Your task to perform on an android device: uninstall "Messenger Lite" Image 0: 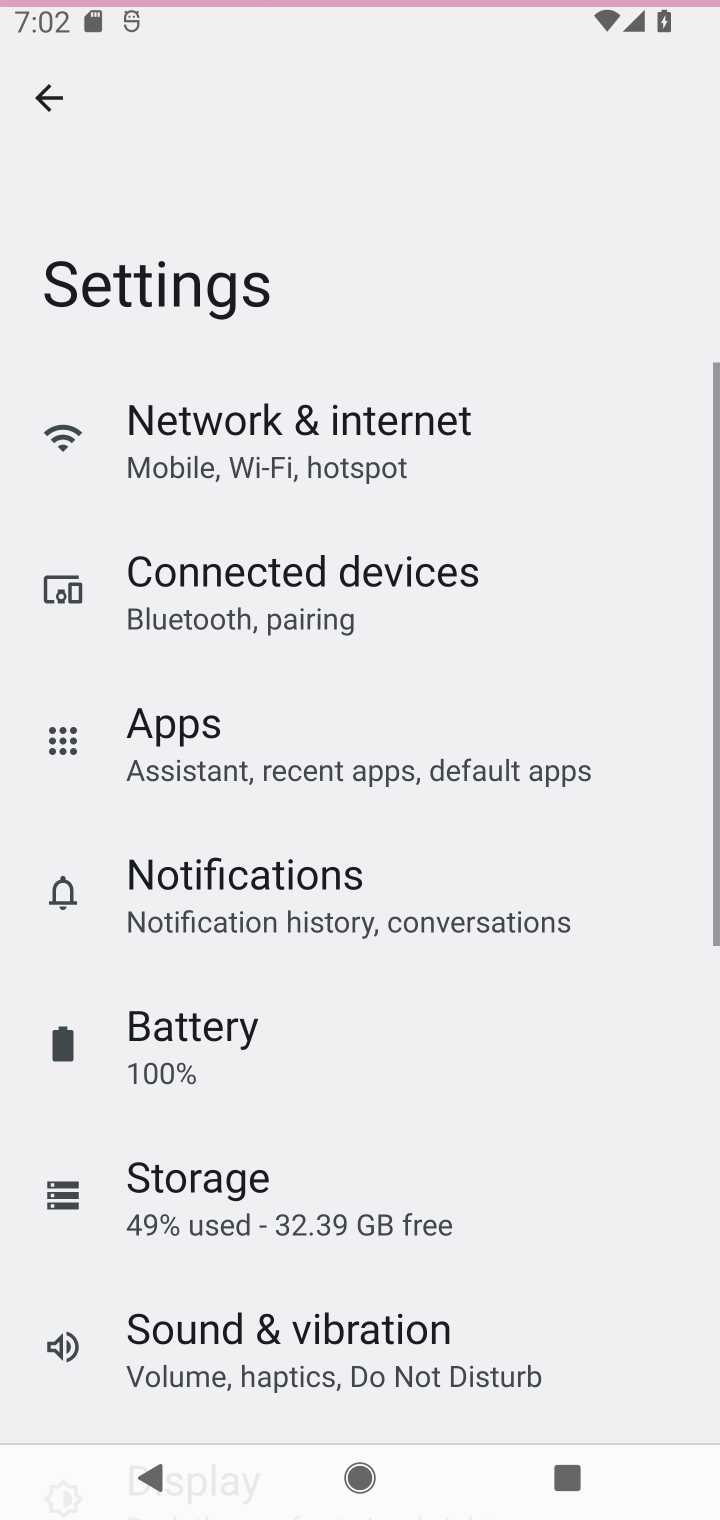
Step 0: press home button
Your task to perform on an android device: uninstall "Messenger Lite" Image 1: 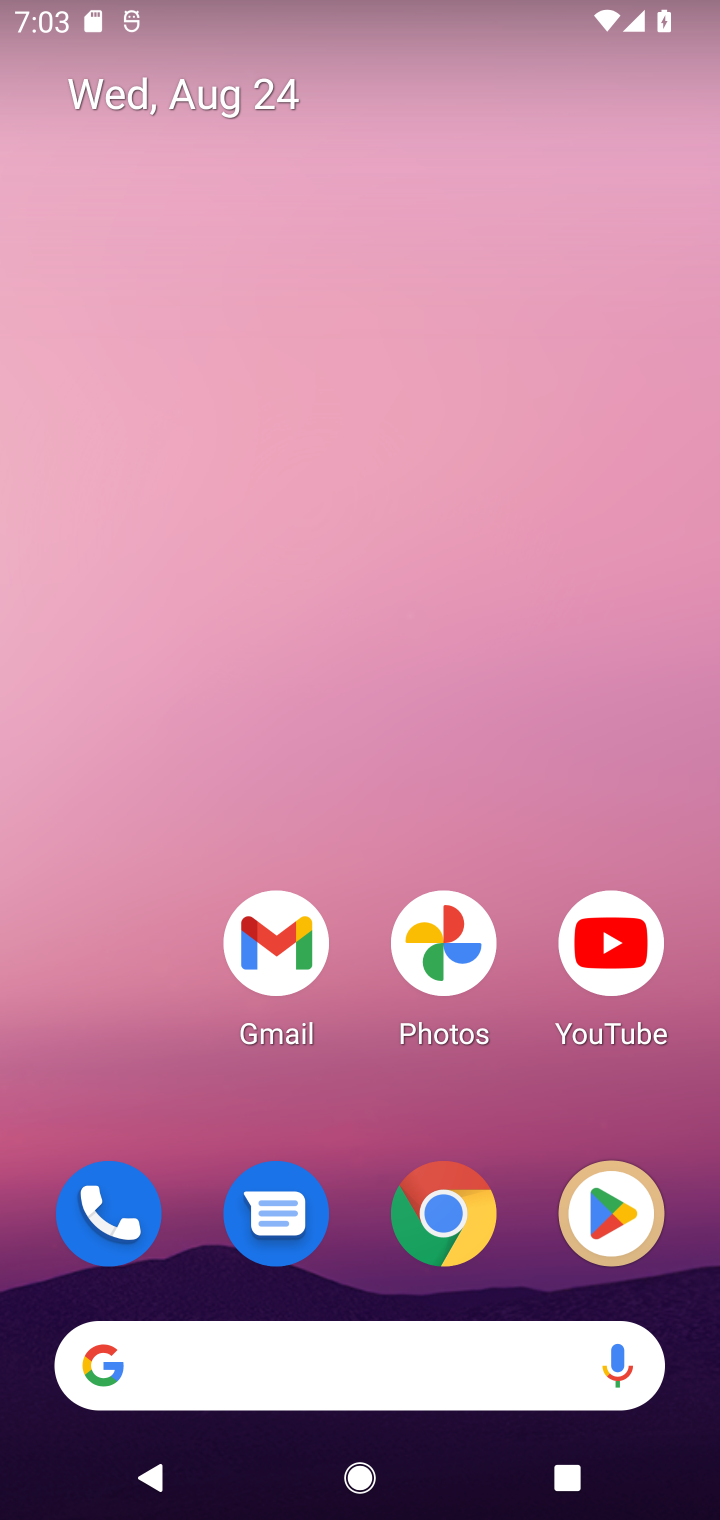
Step 1: click (602, 1205)
Your task to perform on an android device: uninstall "Messenger Lite" Image 2: 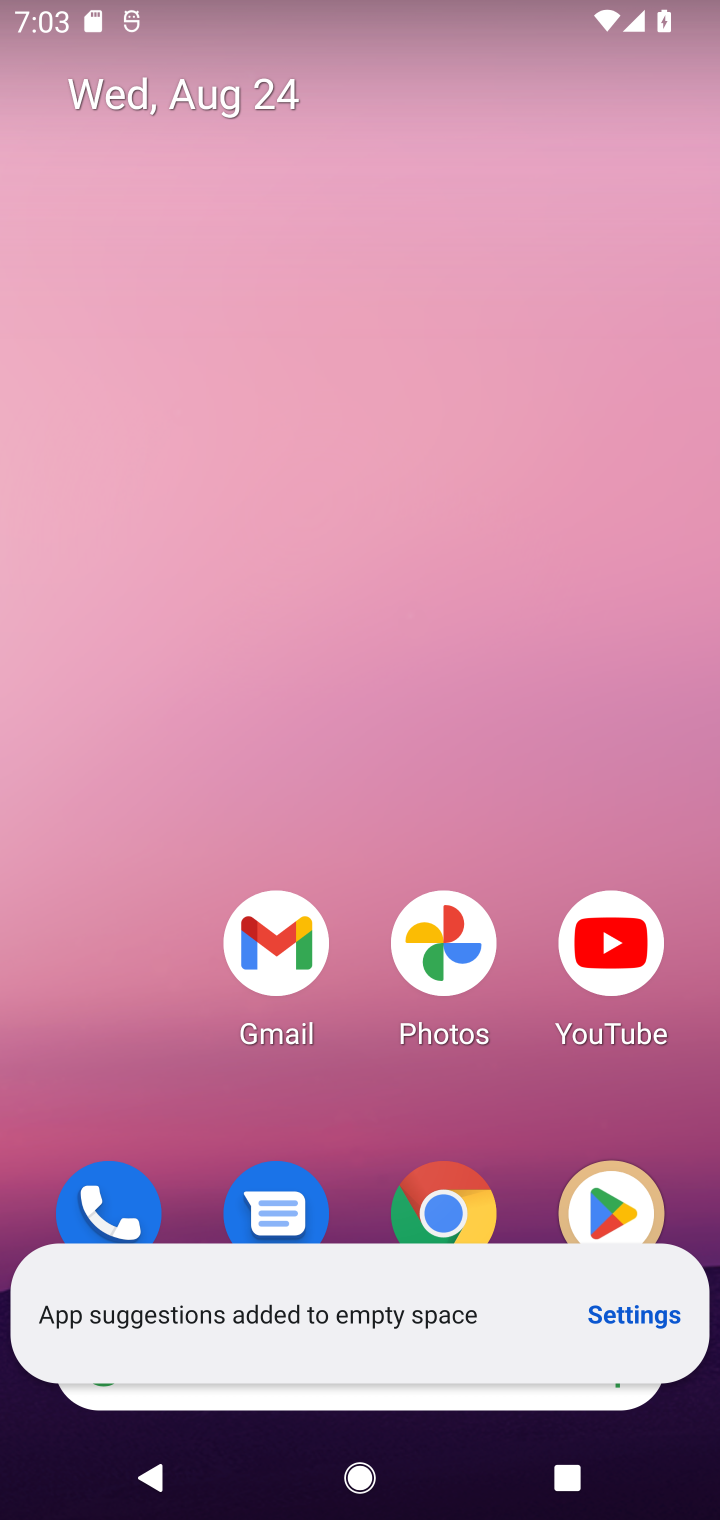
Step 2: click (600, 1203)
Your task to perform on an android device: uninstall "Messenger Lite" Image 3: 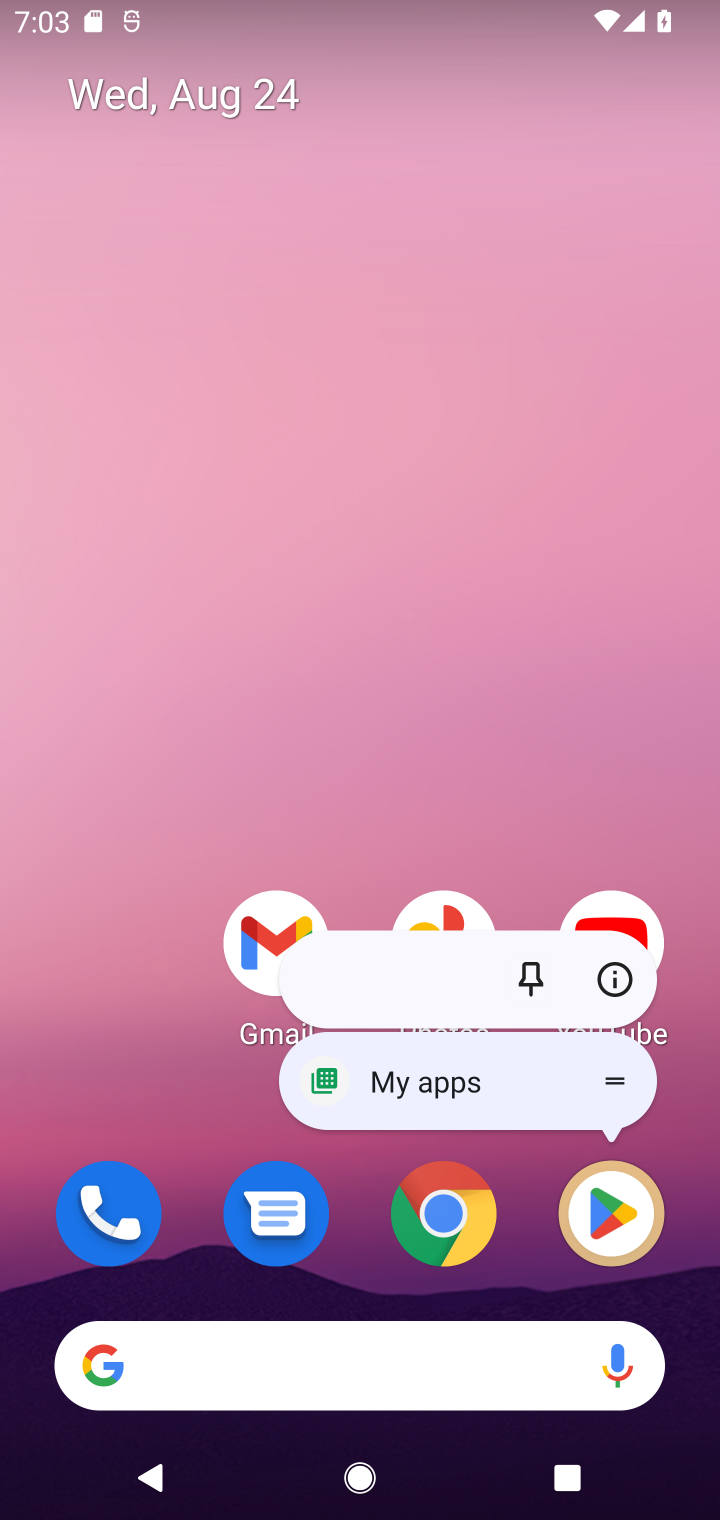
Step 3: click (604, 1203)
Your task to perform on an android device: uninstall "Messenger Lite" Image 4: 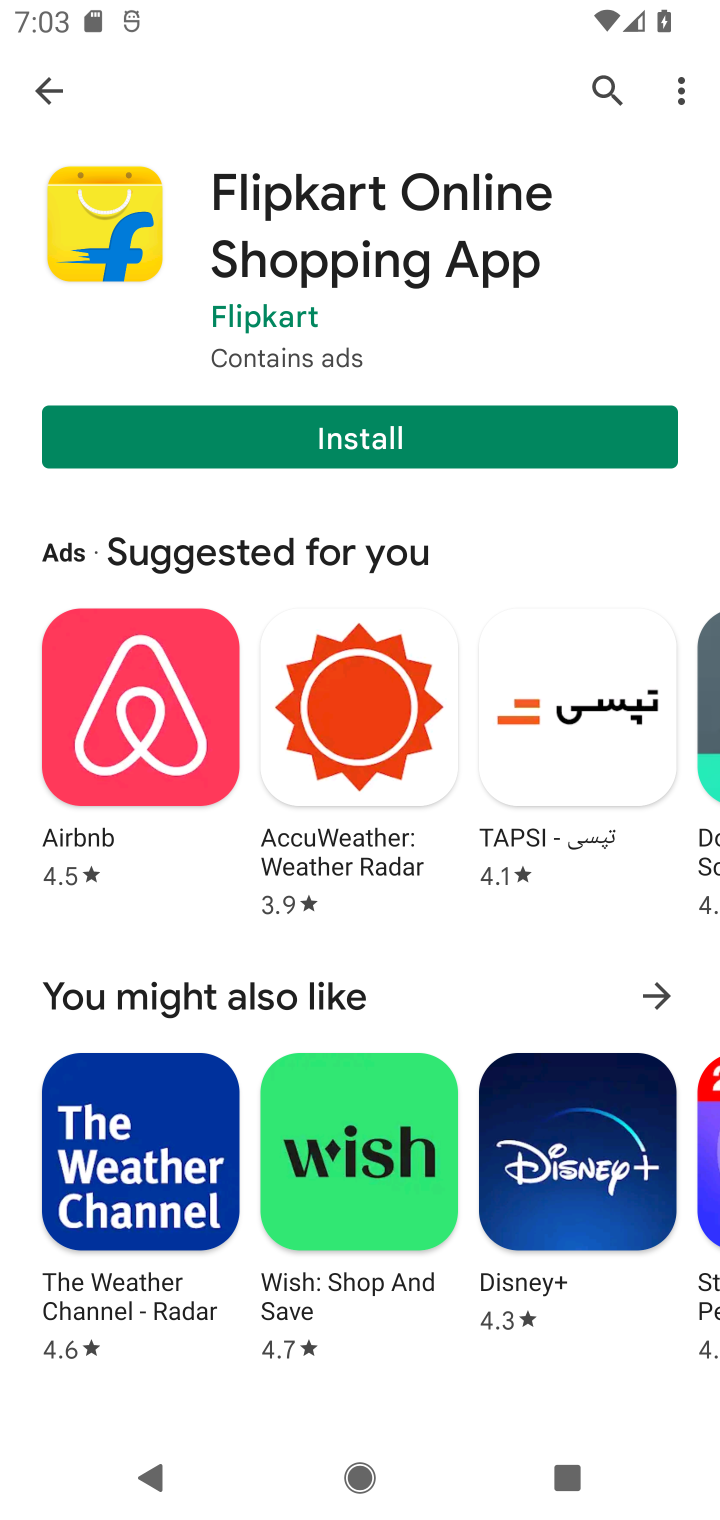
Step 4: click (48, 88)
Your task to perform on an android device: uninstall "Messenger Lite" Image 5: 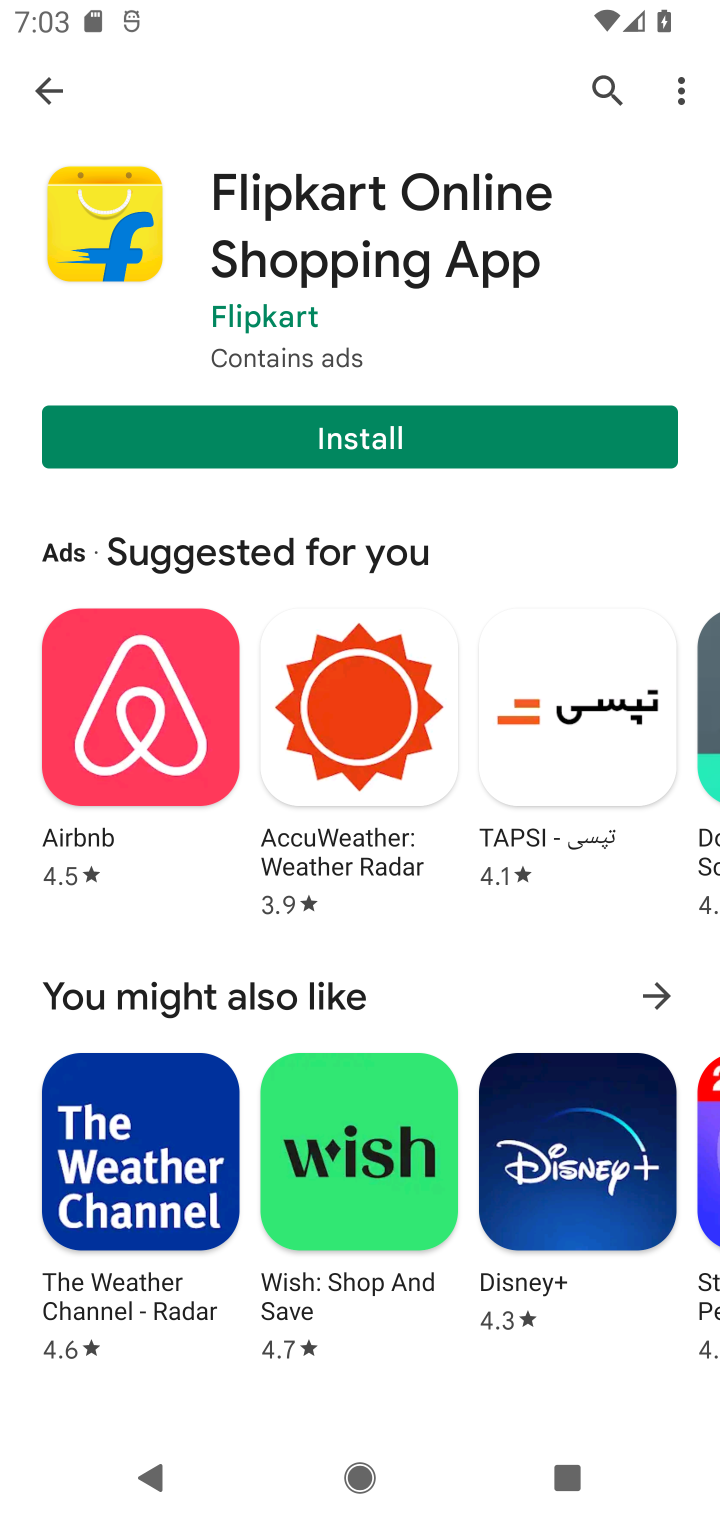
Step 5: click (589, 80)
Your task to perform on an android device: uninstall "Messenger Lite" Image 6: 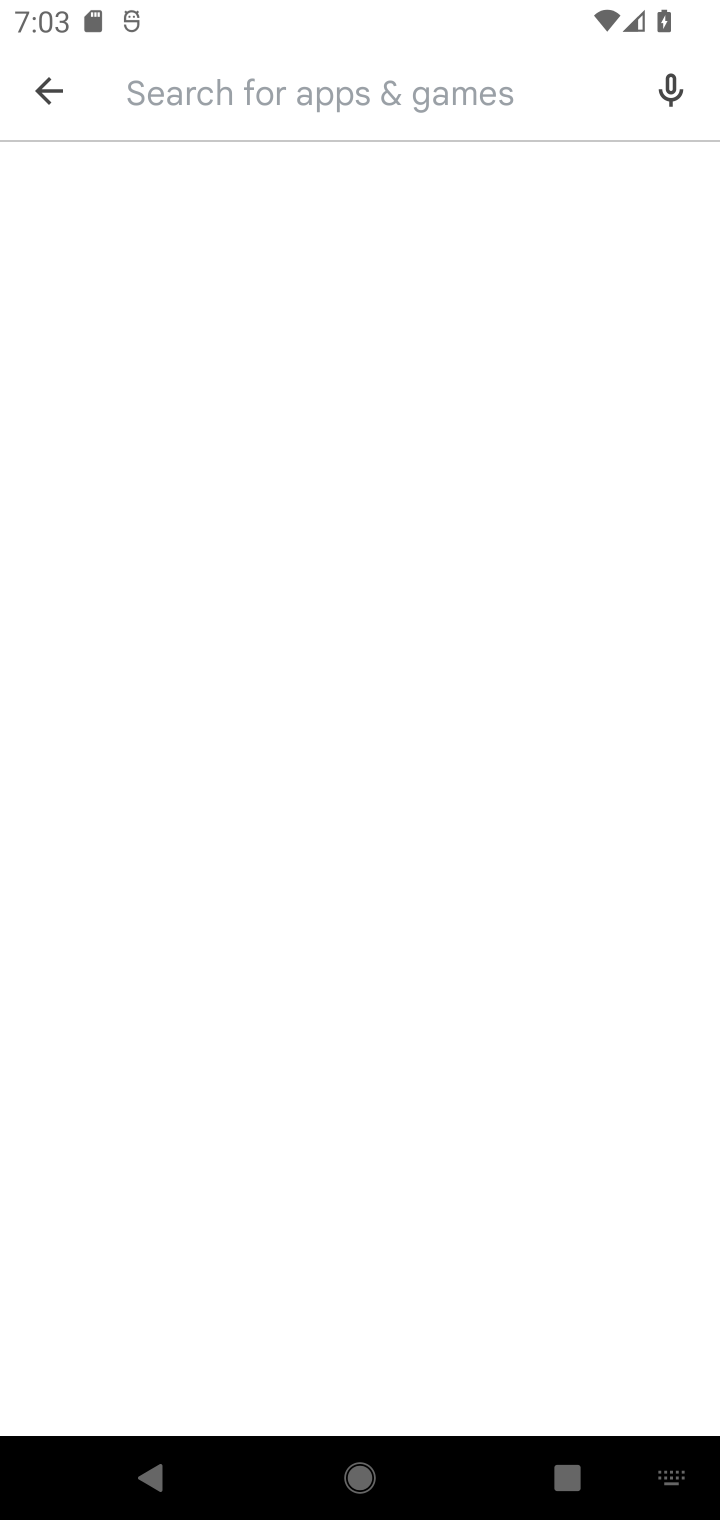
Step 6: type "Messenger Lite"
Your task to perform on an android device: uninstall "Messenger Lite" Image 7: 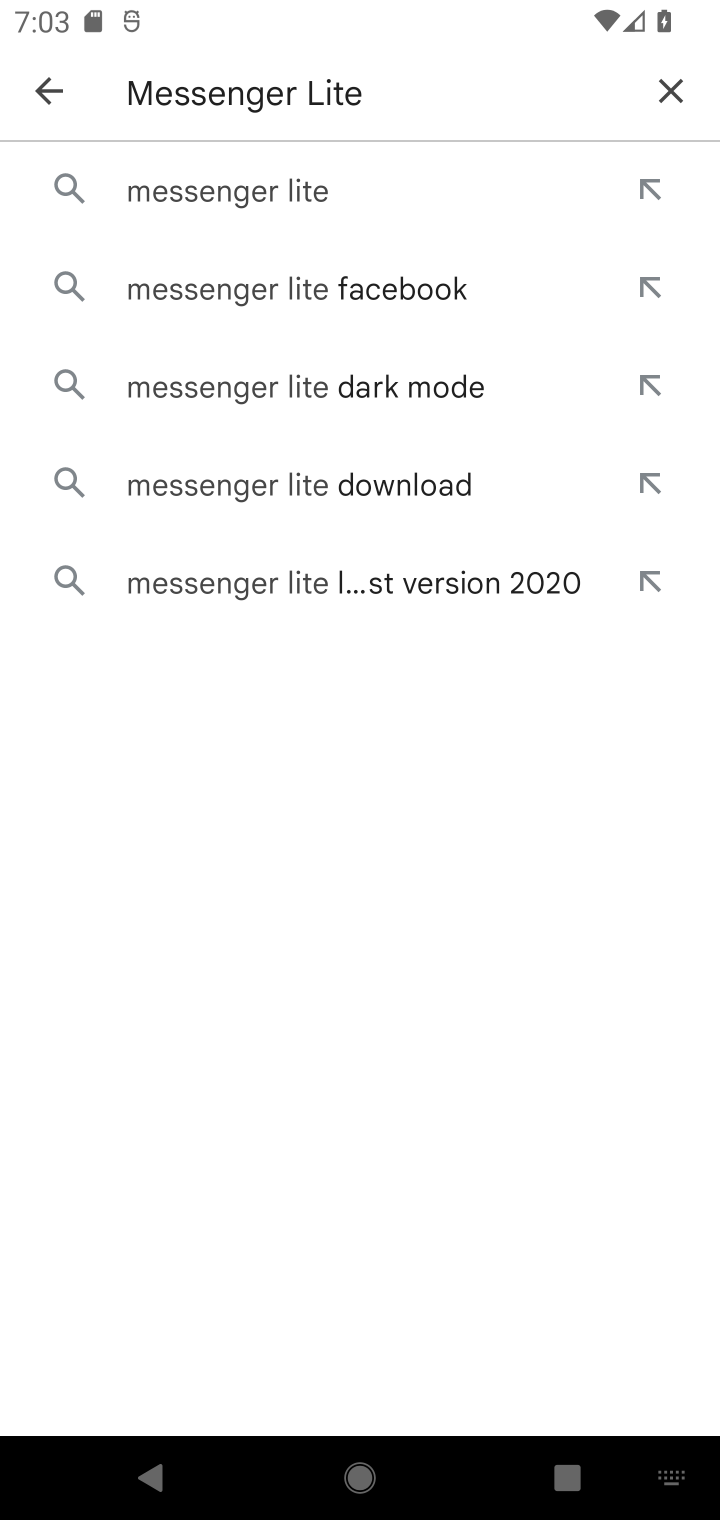
Step 7: click (341, 196)
Your task to perform on an android device: uninstall "Messenger Lite" Image 8: 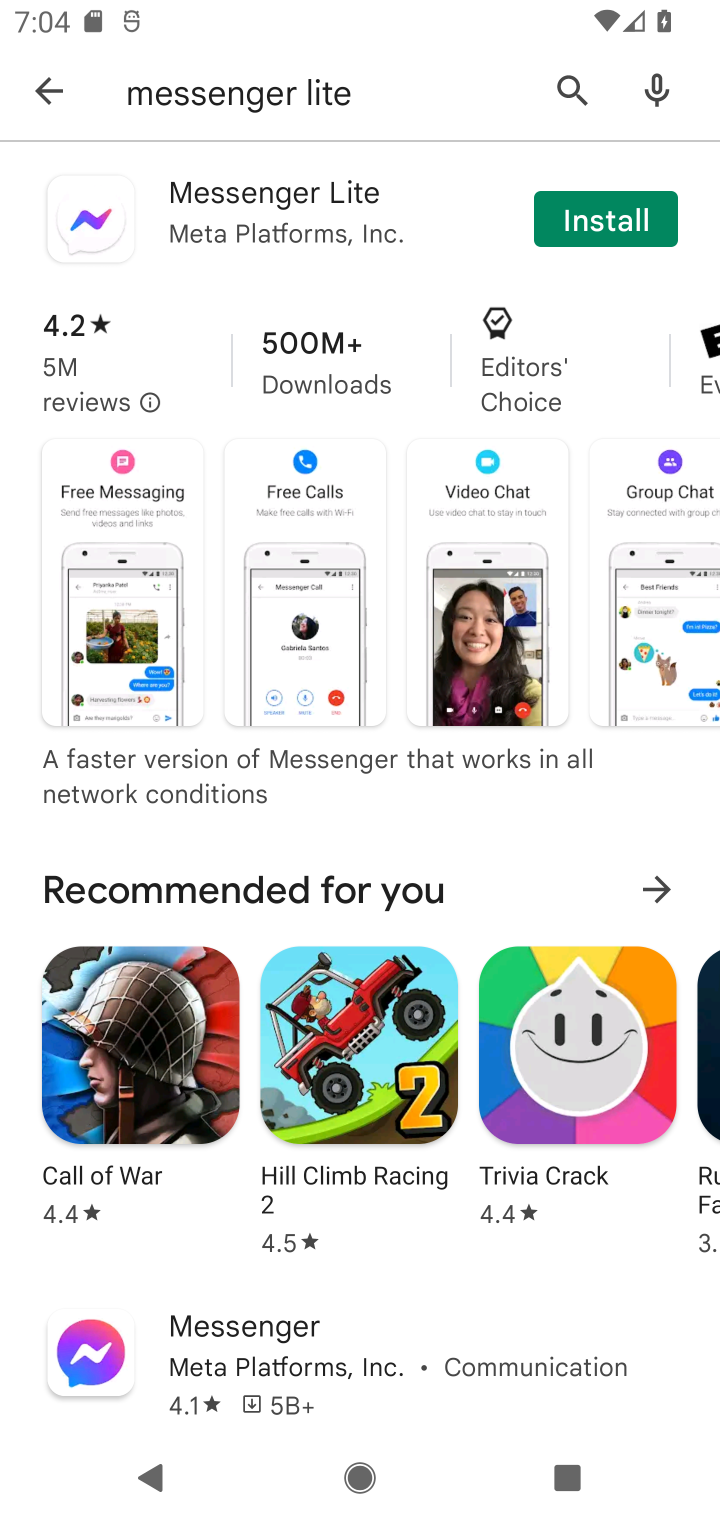
Step 8: task complete